Your task to perform on an android device: toggle wifi Image 0: 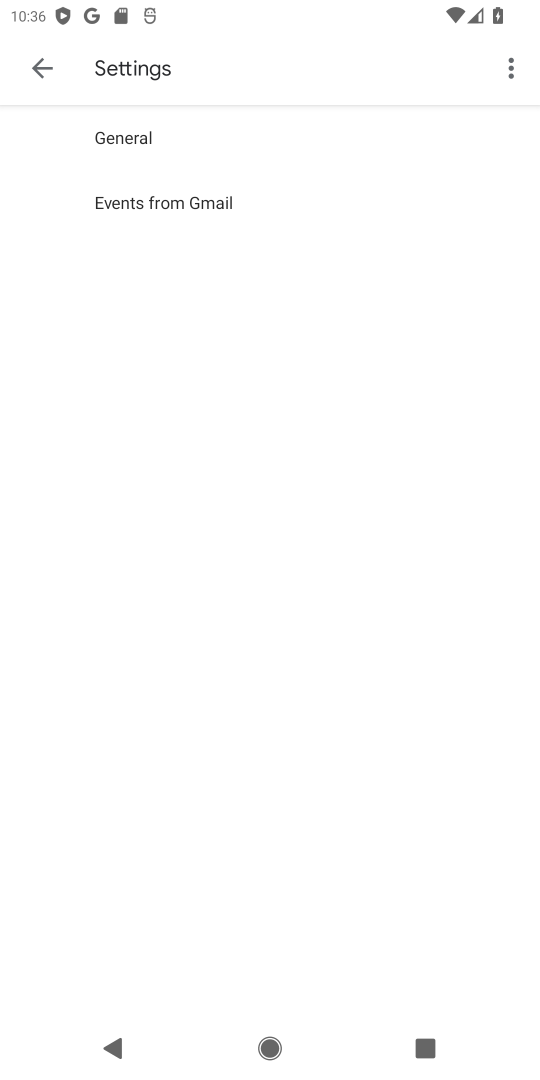
Step 0: drag from (336, 612) to (359, 348)
Your task to perform on an android device: toggle wifi Image 1: 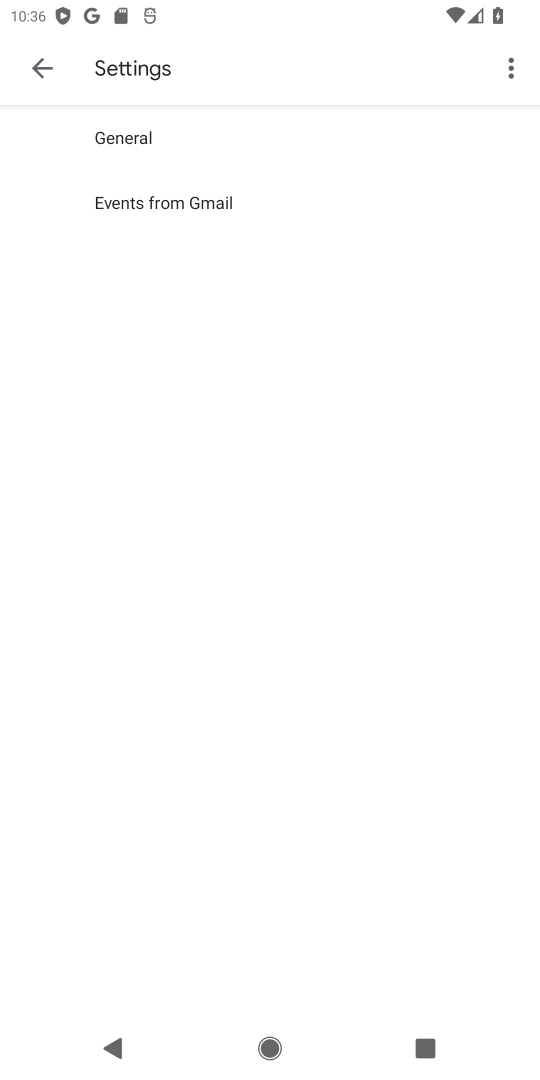
Step 1: press home button
Your task to perform on an android device: toggle wifi Image 2: 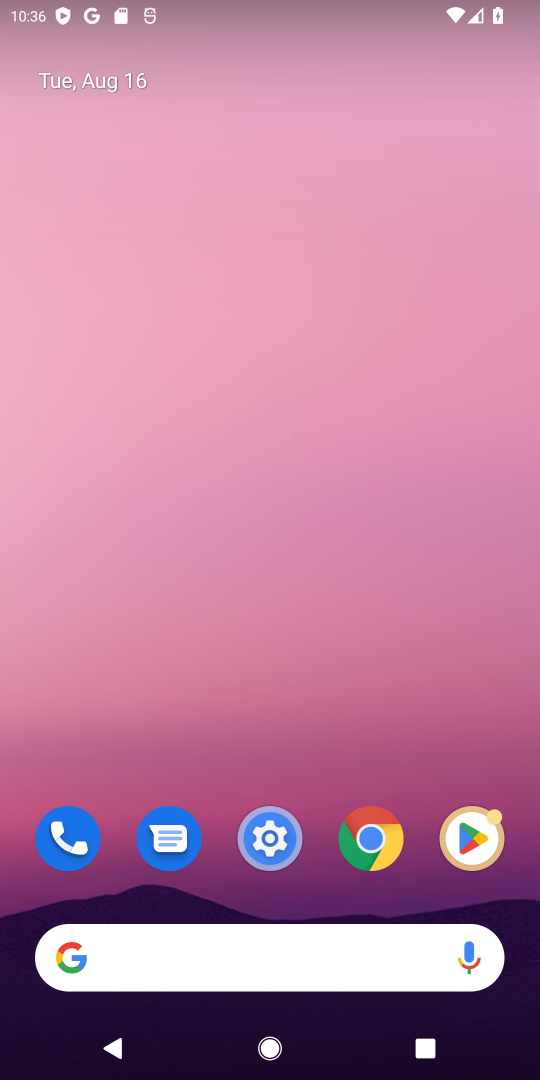
Step 2: click (274, 844)
Your task to perform on an android device: toggle wifi Image 3: 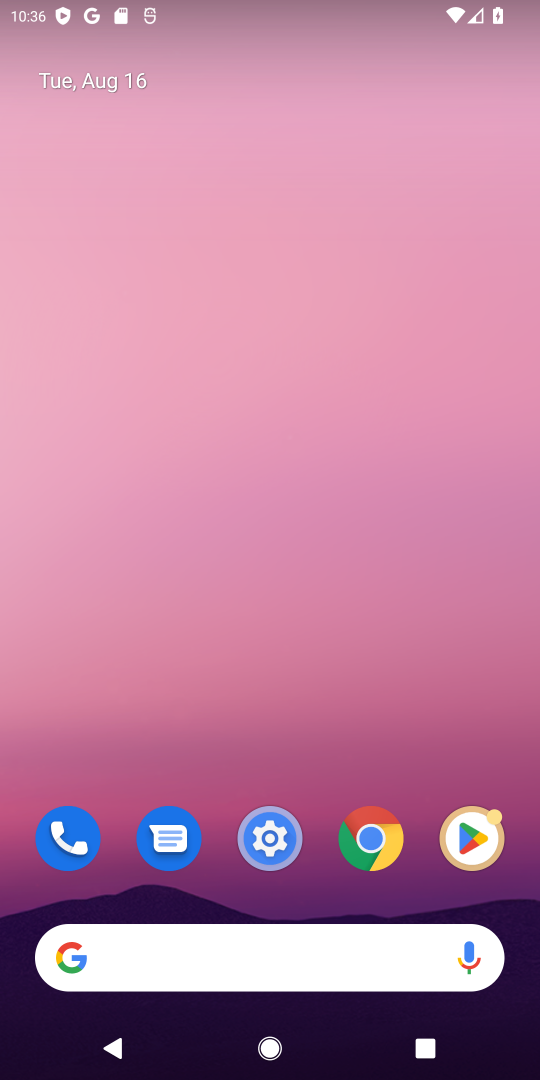
Step 3: click (260, 851)
Your task to perform on an android device: toggle wifi Image 4: 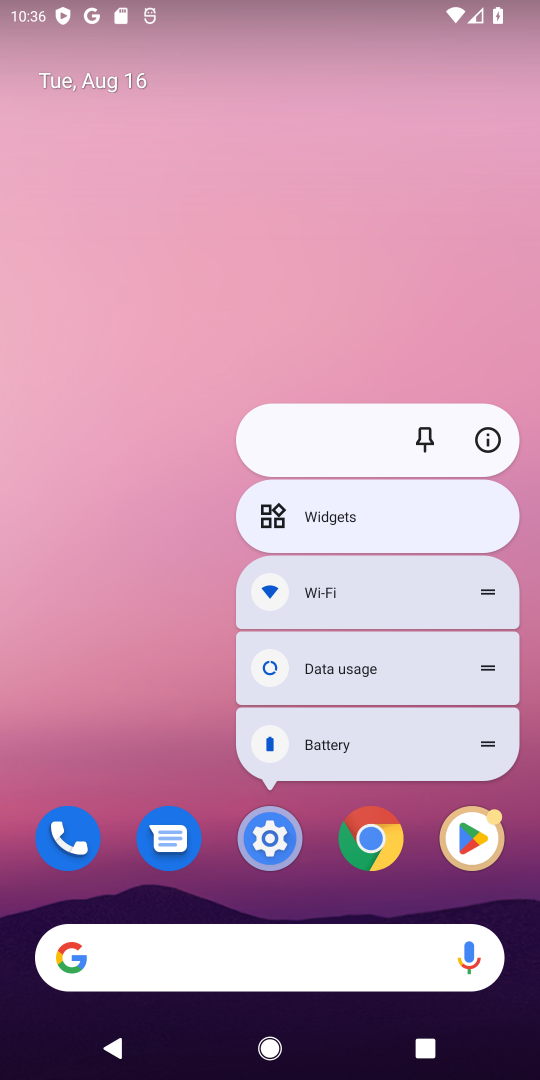
Step 4: click (260, 851)
Your task to perform on an android device: toggle wifi Image 5: 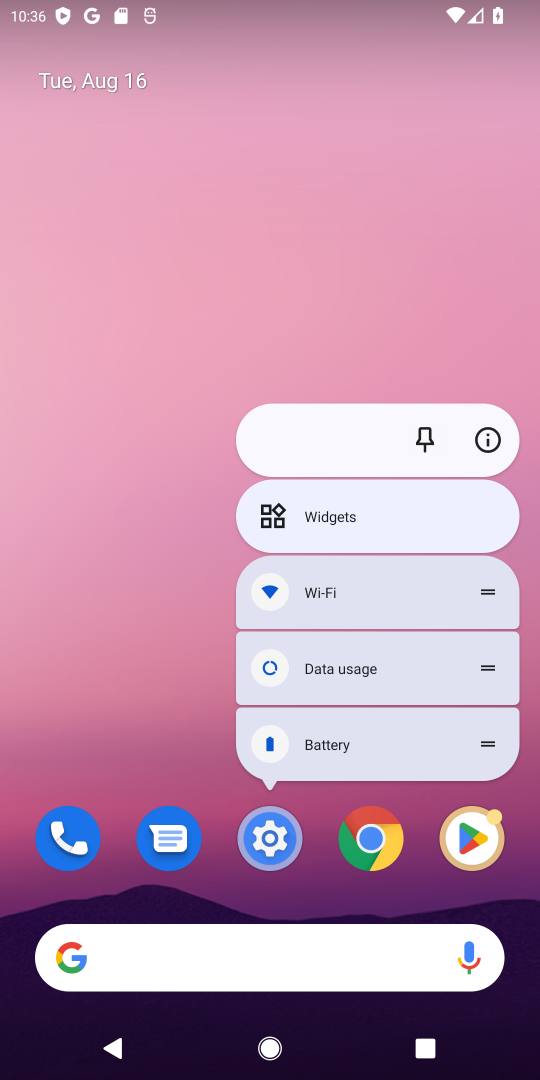
Step 5: click (318, 593)
Your task to perform on an android device: toggle wifi Image 6: 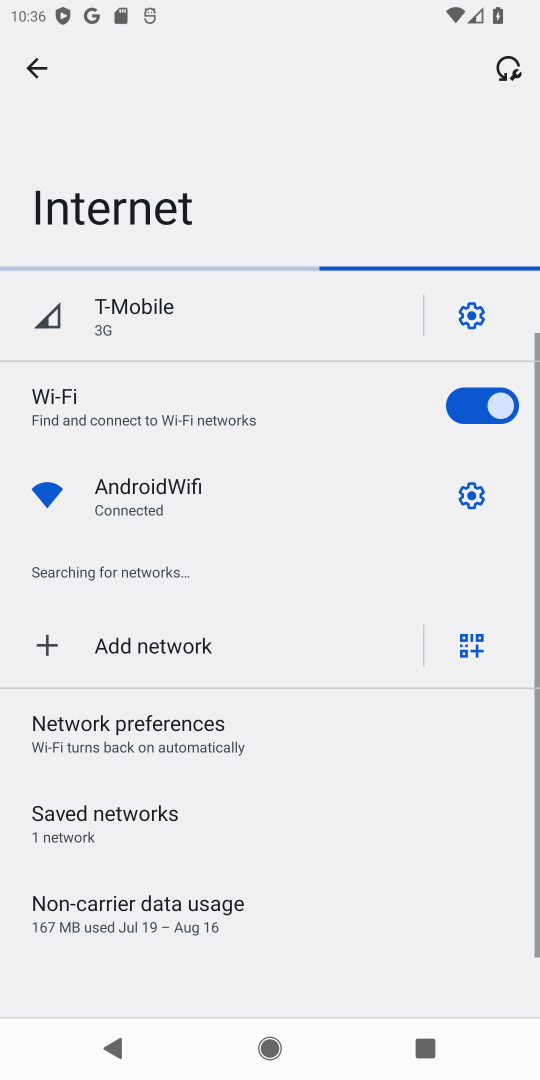
Step 6: click (503, 404)
Your task to perform on an android device: toggle wifi Image 7: 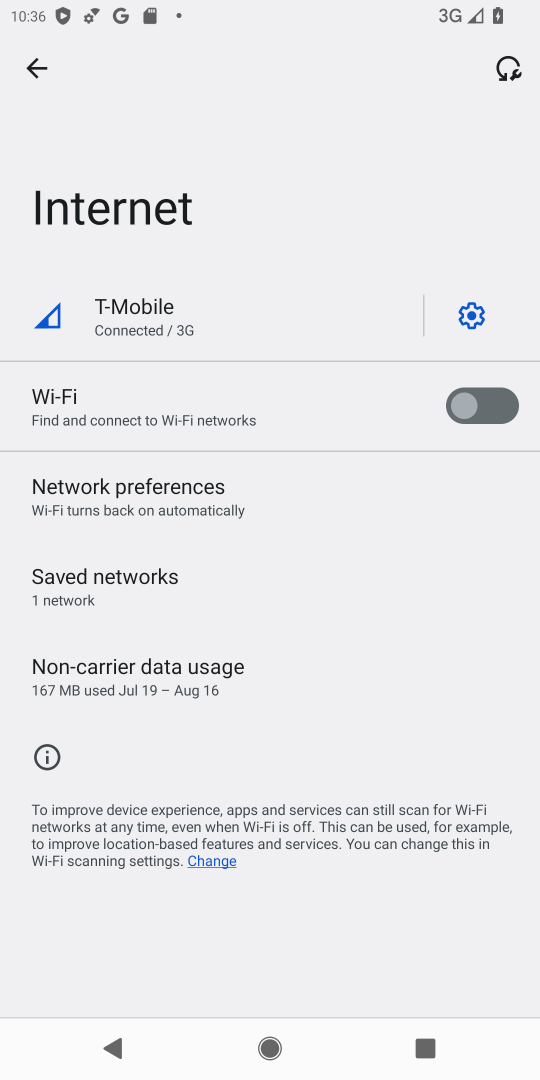
Step 7: task complete